Your task to perform on an android device: turn on translation in the chrome app Image 0: 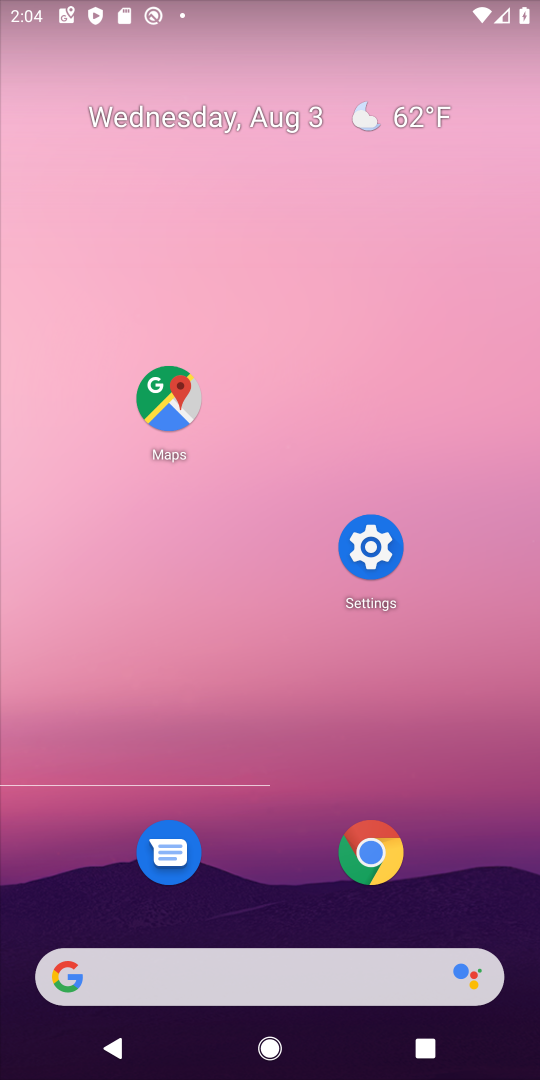
Step 0: press home button
Your task to perform on an android device: turn on translation in the chrome app Image 1: 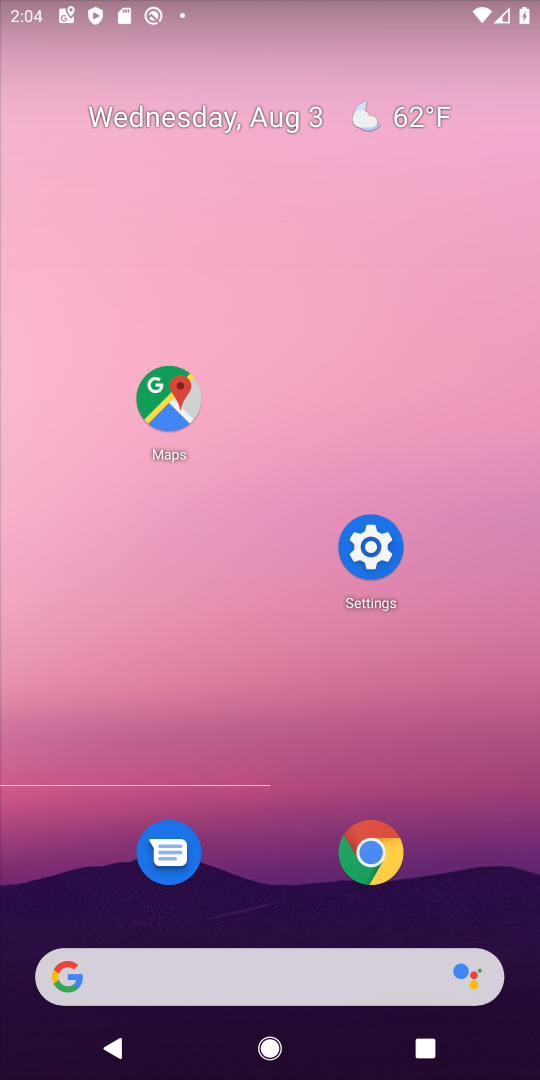
Step 1: click (361, 851)
Your task to perform on an android device: turn on translation in the chrome app Image 2: 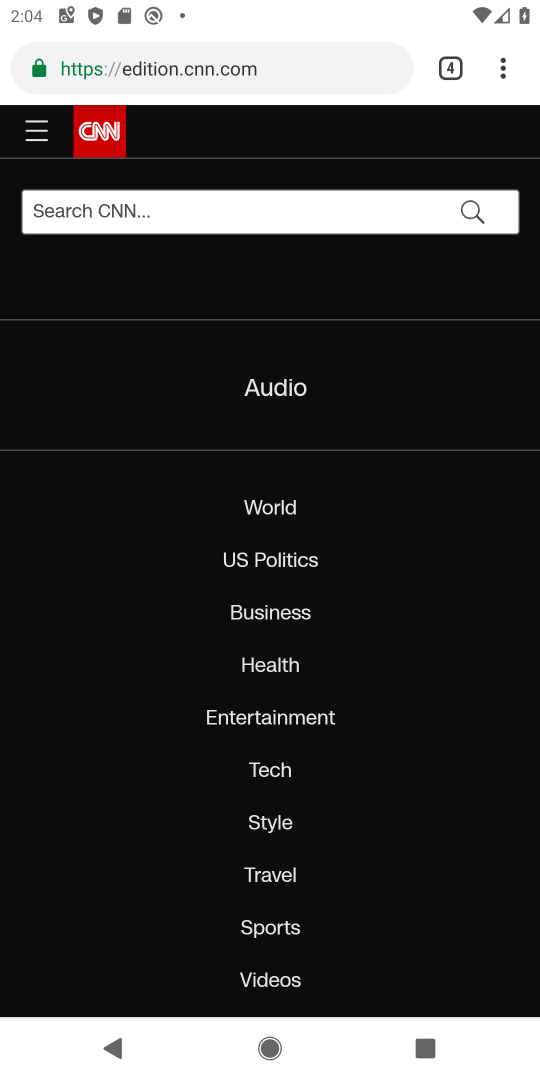
Step 2: drag from (504, 60) to (363, 896)
Your task to perform on an android device: turn on translation in the chrome app Image 3: 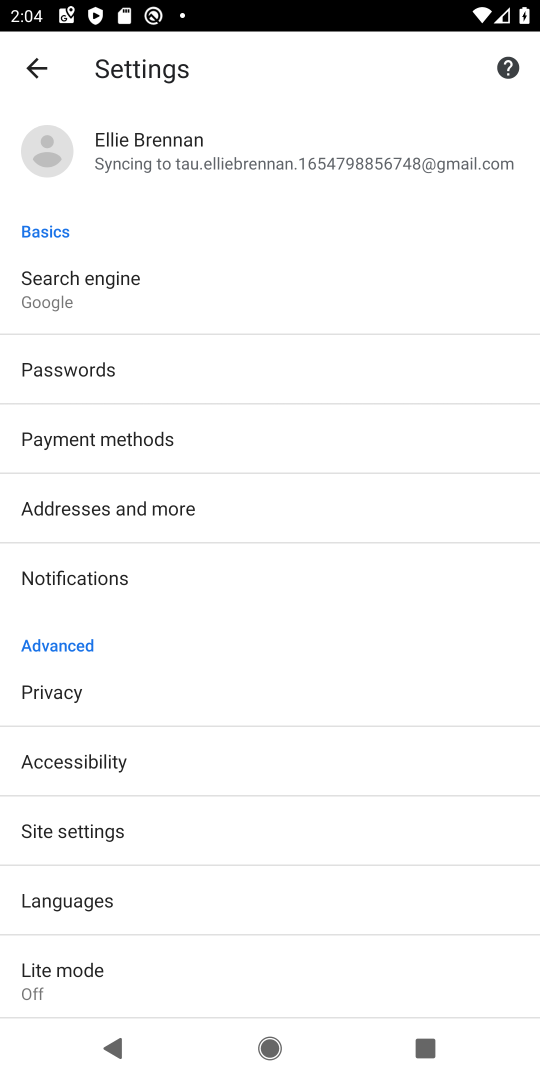
Step 3: drag from (263, 927) to (411, 588)
Your task to perform on an android device: turn on translation in the chrome app Image 4: 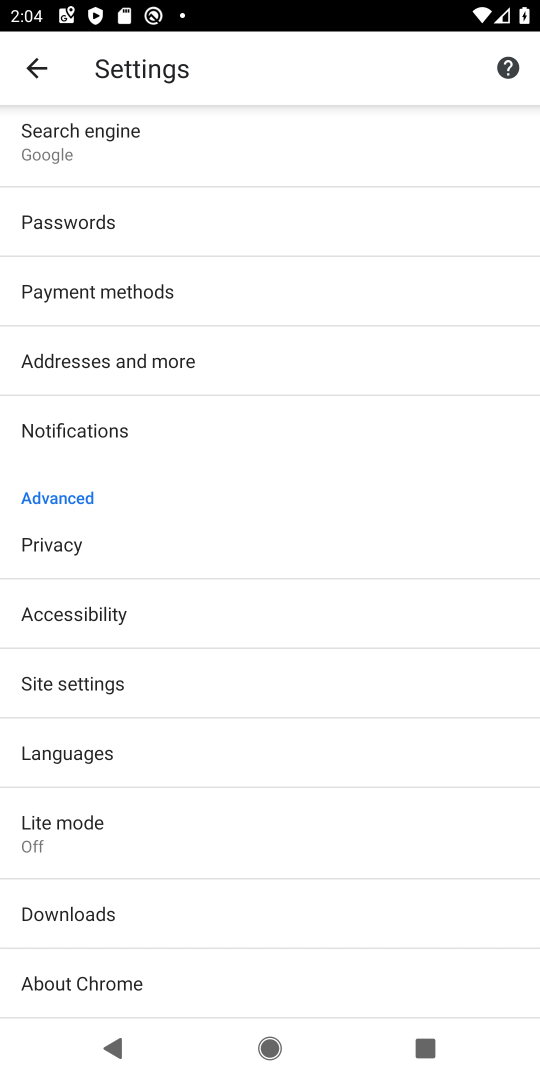
Step 4: click (140, 743)
Your task to perform on an android device: turn on translation in the chrome app Image 5: 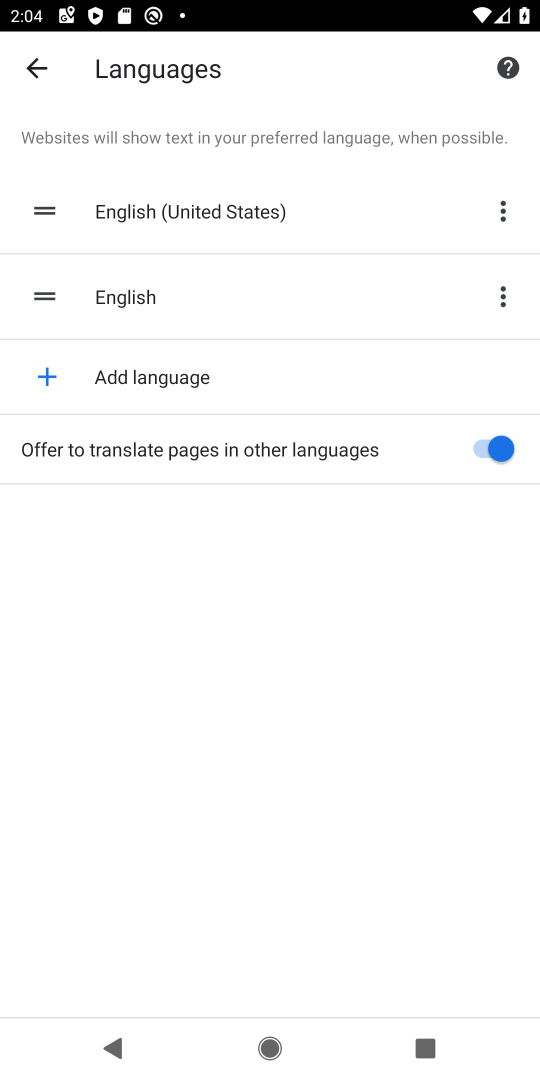
Step 5: task complete